Your task to perform on an android device: What is the recent news? Image 0: 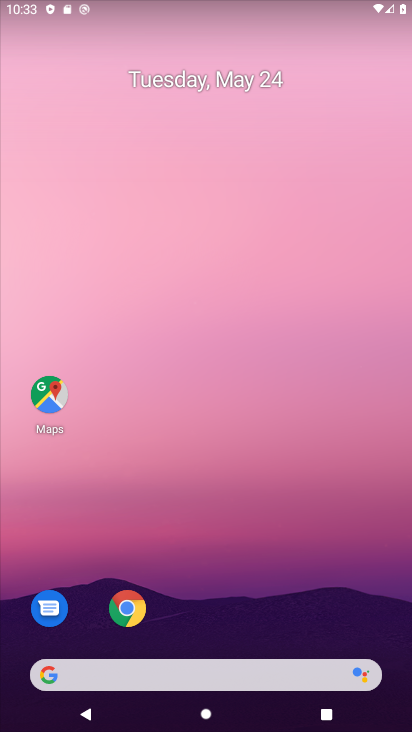
Step 0: drag from (11, 247) to (387, 258)
Your task to perform on an android device: What is the recent news? Image 1: 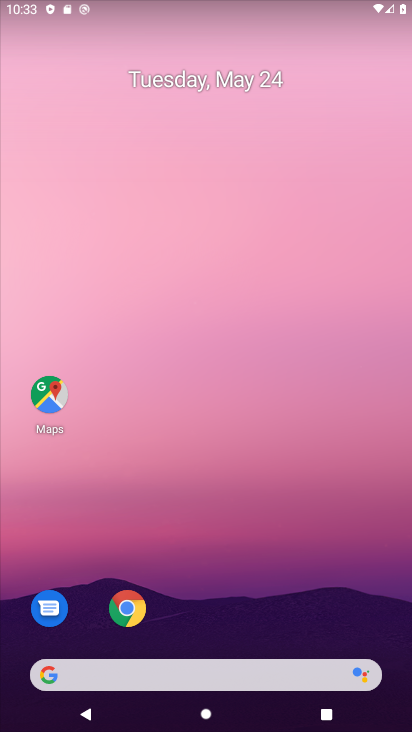
Step 1: task complete